Your task to perform on an android device: empty trash in the gmail app Image 0: 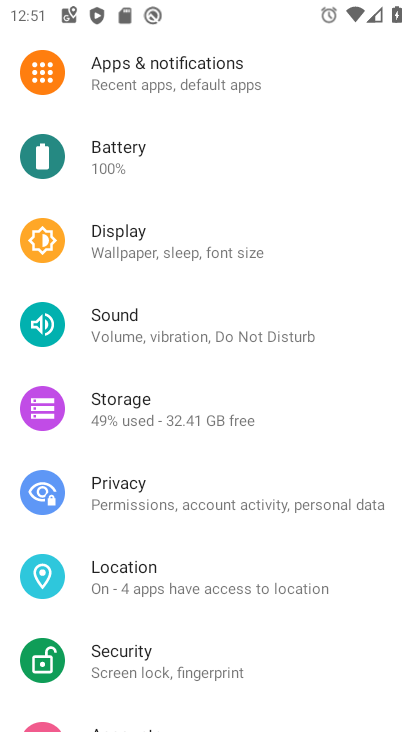
Step 0: press home button
Your task to perform on an android device: empty trash in the gmail app Image 1: 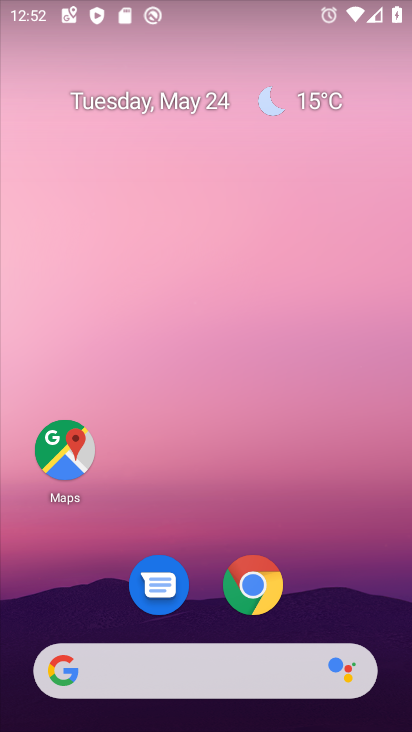
Step 1: drag from (218, 542) to (252, 13)
Your task to perform on an android device: empty trash in the gmail app Image 2: 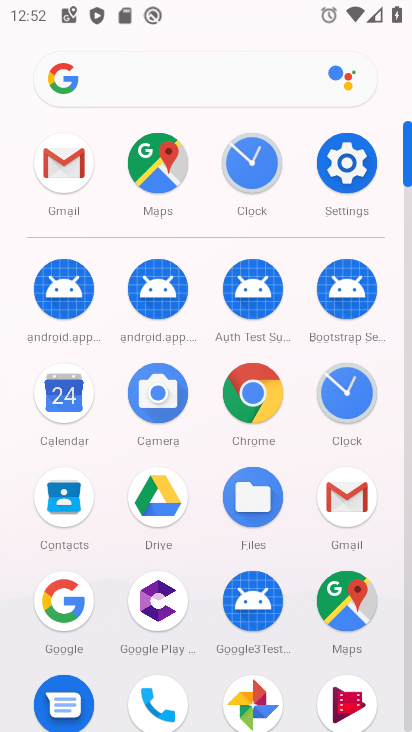
Step 2: click (75, 167)
Your task to perform on an android device: empty trash in the gmail app Image 3: 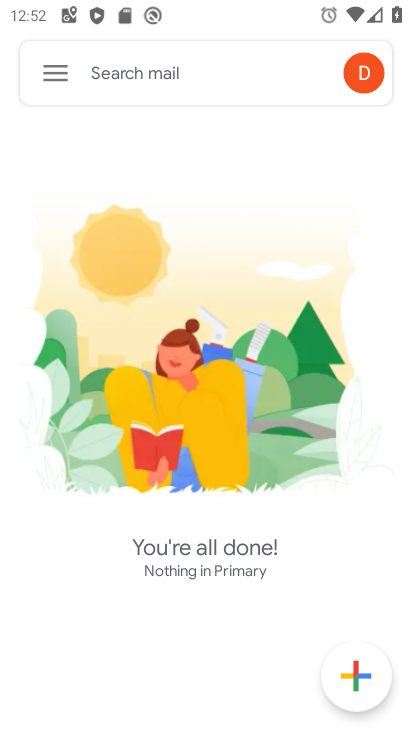
Step 3: click (50, 71)
Your task to perform on an android device: empty trash in the gmail app Image 4: 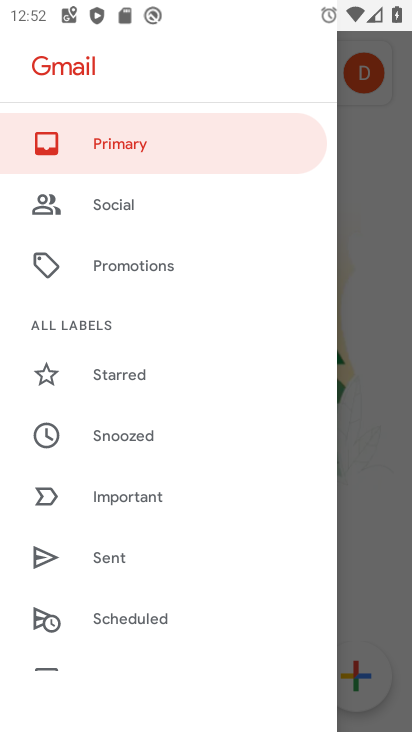
Step 4: drag from (159, 525) to (219, 140)
Your task to perform on an android device: empty trash in the gmail app Image 5: 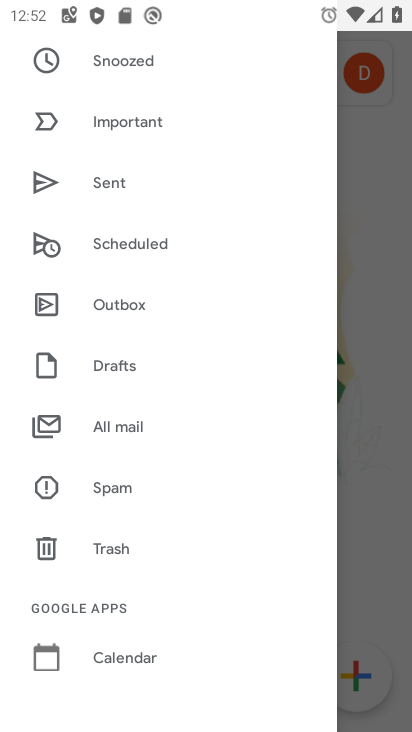
Step 5: click (120, 550)
Your task to perform on an android device: empty trash in the gmail app Image 6: 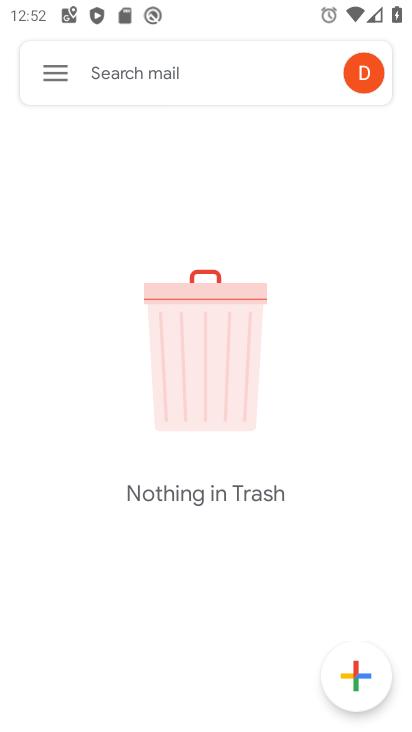
Step 6: task complete